Your task to perform on an android device: Go to Google maps Image 0: 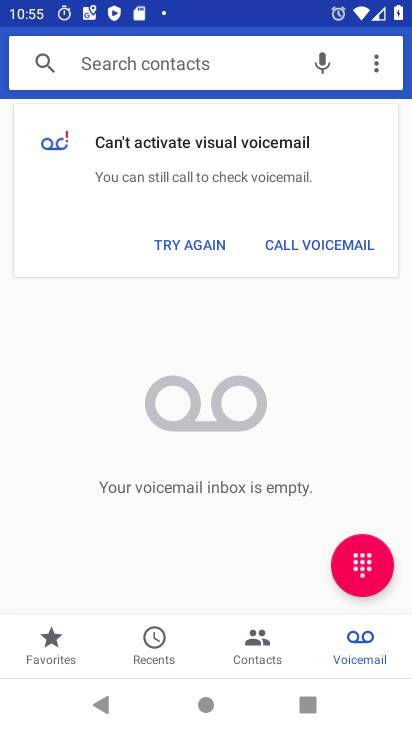
Step 0: press back button
Your task to perform on an android device: Go to Google maps Image 1: 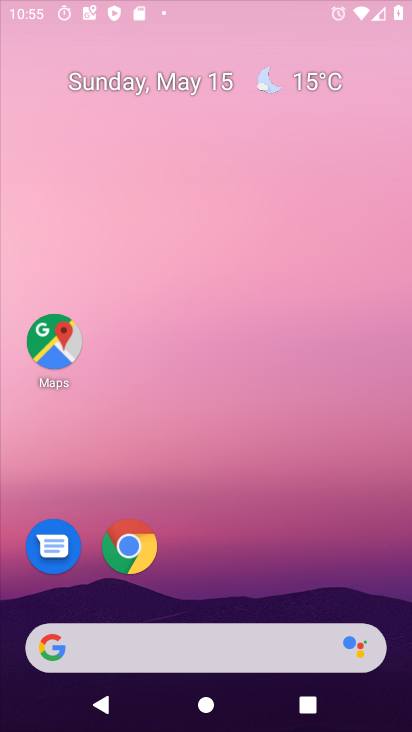
Step 1: drag from (341, 613) to (264, 63)
Your task to perform on an android device: Go to Google maps Image 2: 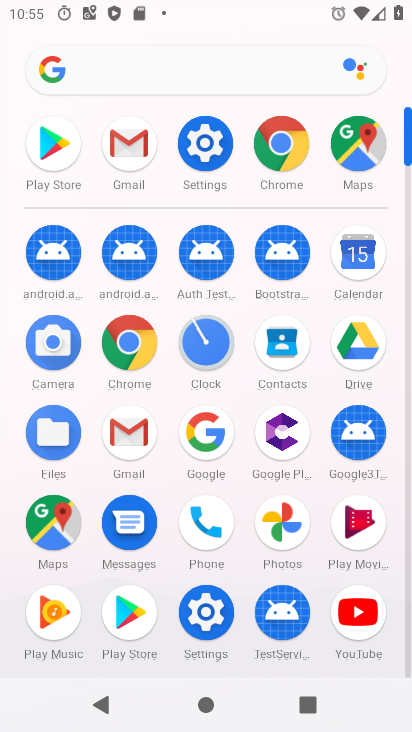
Step 2: click (358, 152)
Your task to perform on an android device: Go to Google maps Image 3: 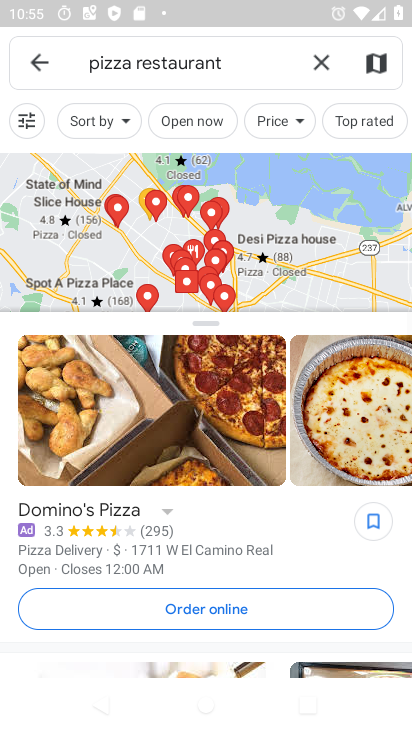
Step 3: task complete